Your task to perform on an android device: add a contact in the contacts app Image 0: 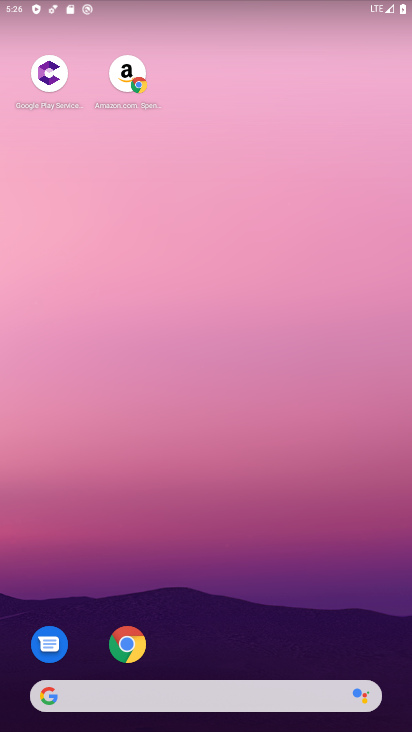
Step 0: drag from (296, 697) to (257, 70)
Your task to perform on an android device: add a contact in the contacts app Image 1: 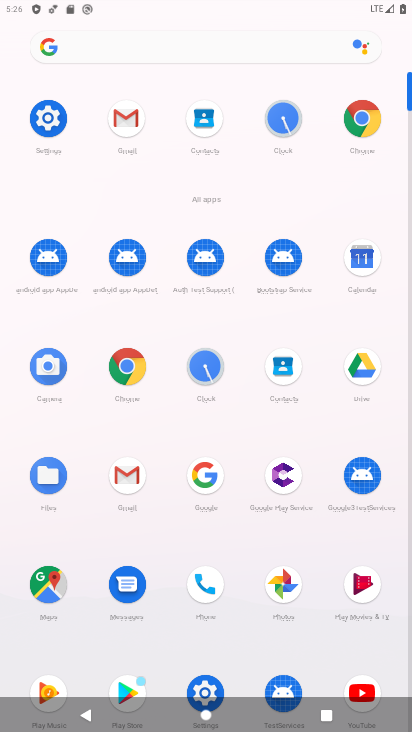
Step 1: click (289, 366)
Your task to perform on an android device: add a contact in the contacts app Image 2: 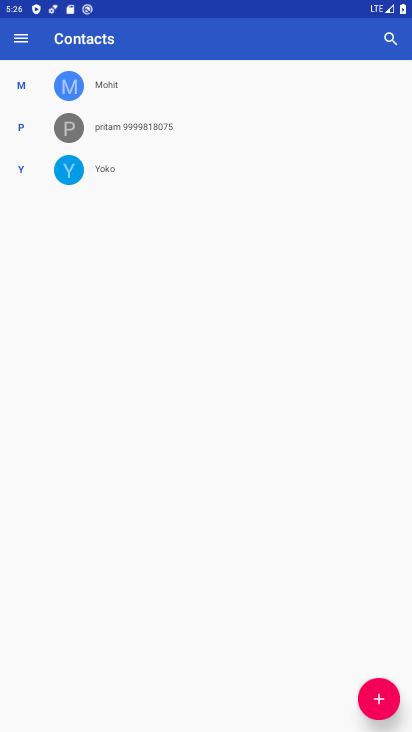
Step 2: click (381, 698)
Your task to perform on an android device: add a contact in the contacts app Image 3: 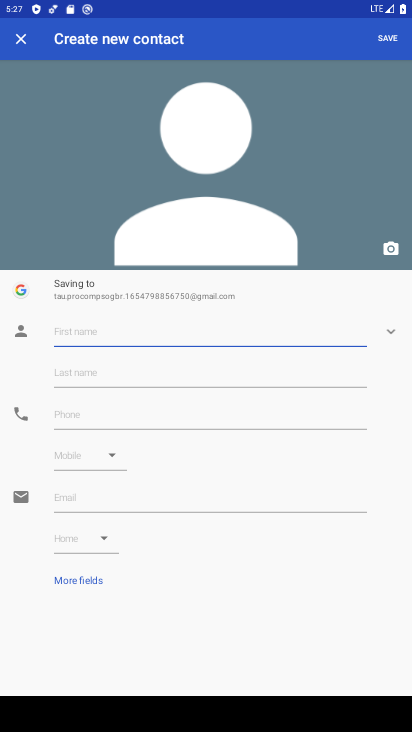
Step 3: type "Sumit"
Your task to perform on an android device: add a contact in the contacts app Image 4: 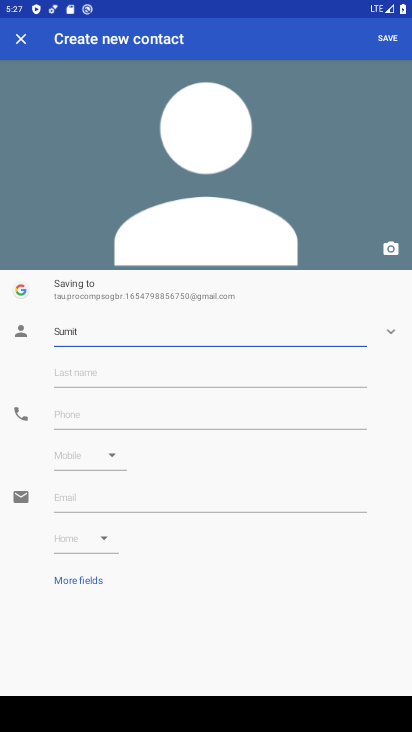
Step 4: click (124, 407)
Your task to perform on an android device: add a contact in the contacts app Image 5: 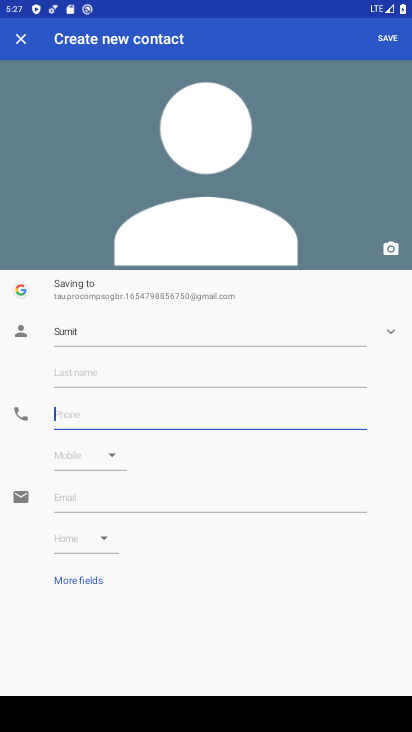
Step 5: type "8009767543"
Your task to perform on an android device: add a contact in the contacts app Image 6: 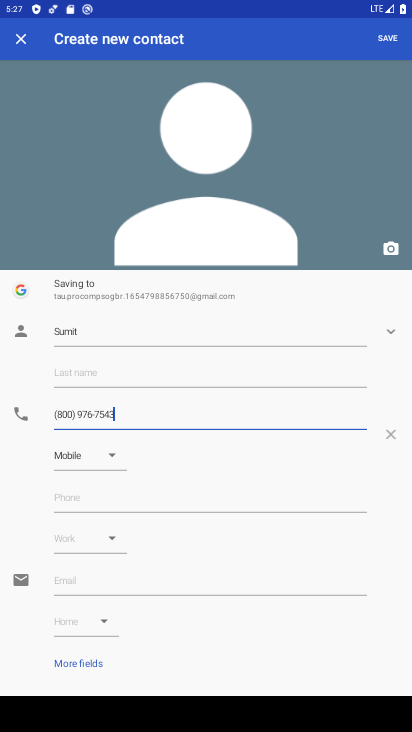
Step 6: click (390, 35)
Your task to perform on an android device: add a contact in the contacts app Image 7: 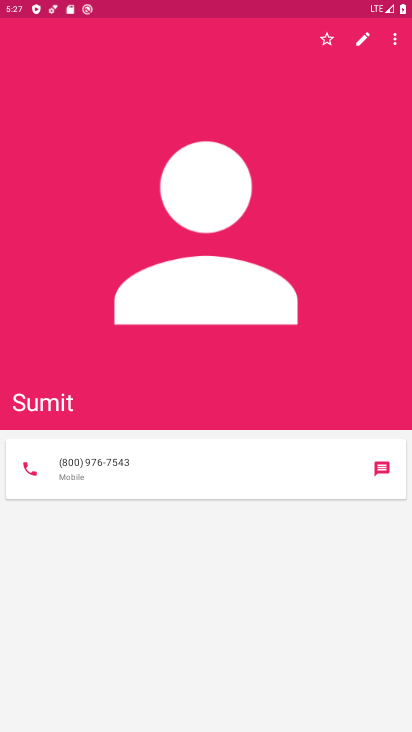
Step 7: task complete